Your task to perform on an android device: check the backup settings in the google photos Image 0: 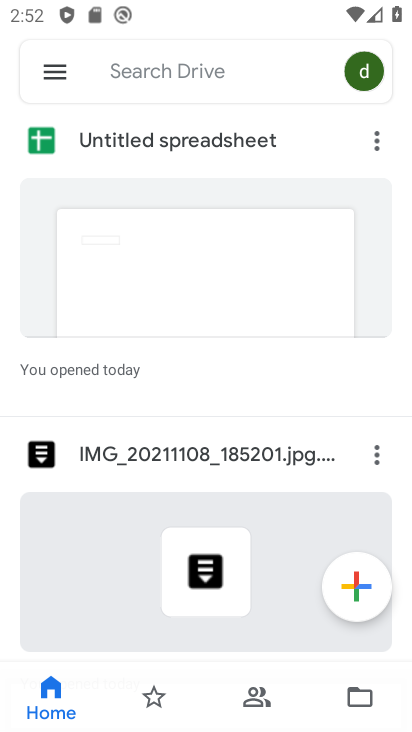
Step 0: press home button
Your task to perform on an android device: check the backup settings in the google photos Image 1: 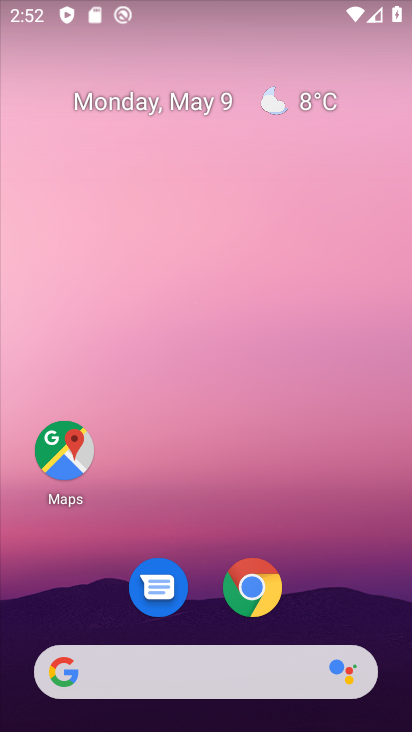
Step 1: drag from (309, 581) to (297, 189)
Your task to perform on an android device: check the backup settings in the google photos Image 2: 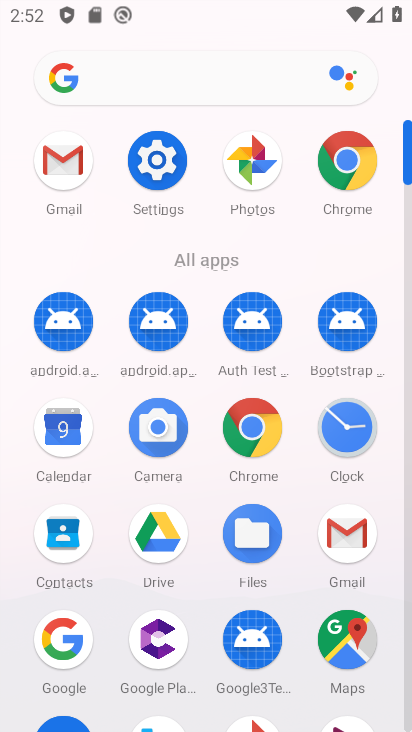
Step 2: click (246, 189)
Your task to perform on an android device: check the backup settings in the google photos Image 3: 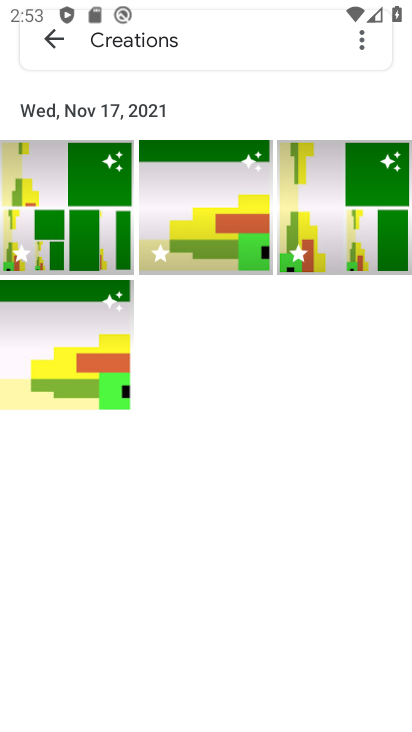
Step 3: click (50, 39)
Your task to perform on an android device: check the backup settings in the google photos Image 4: 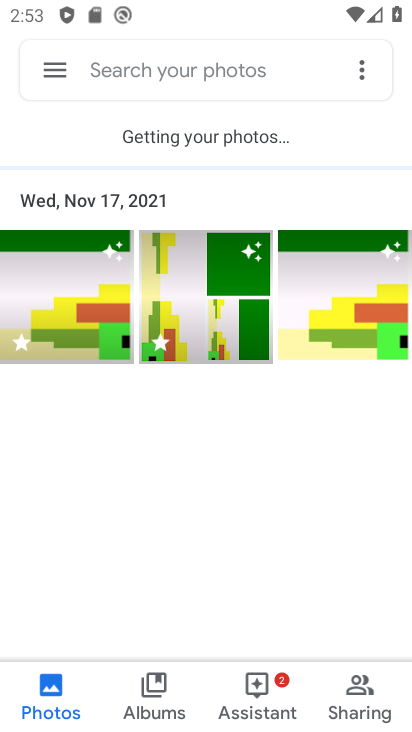
Step 4: click (357, 73)
Your task to perform on an android device: check the backup settings in the google photos Image 5: 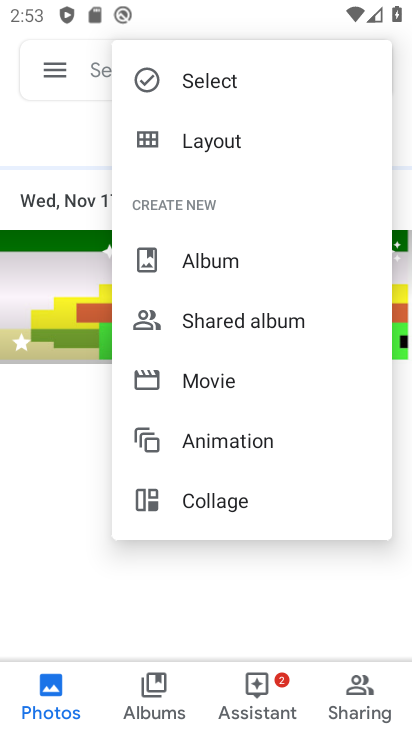
Step 5: click (45, 545)
Your task to perform on an android device: check the backup settings in the google photos Image 6: 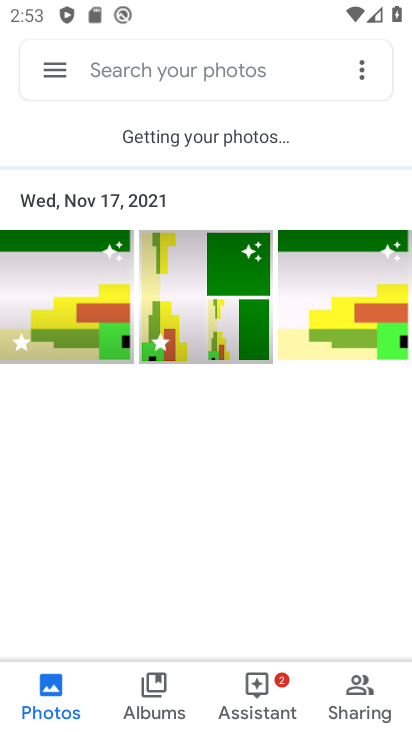
Step 6: click (48, 77)
Your task to perform on an android device: check the backup settings in the google photos Image 7: 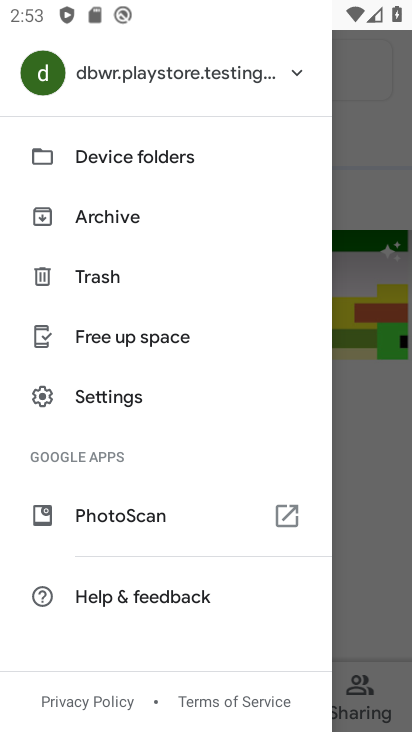
Step 7: click (130, 404)
Your task to perform on an android device: check the backup settings in the google photos Image 8: 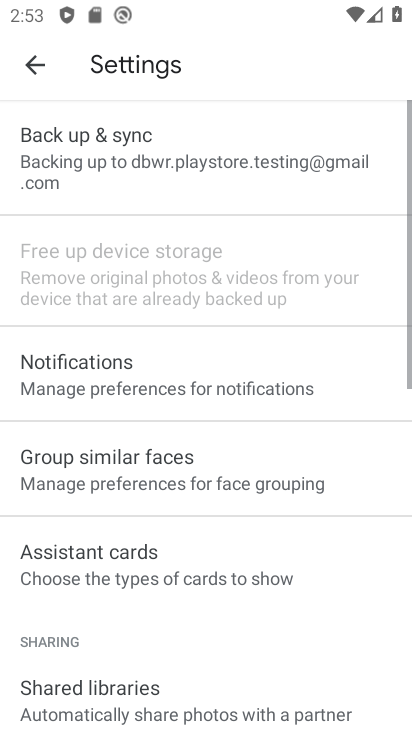
Step 8: click (181, 178)
Your task to perform on an android device: check the backup settings in the google photos Image 9: 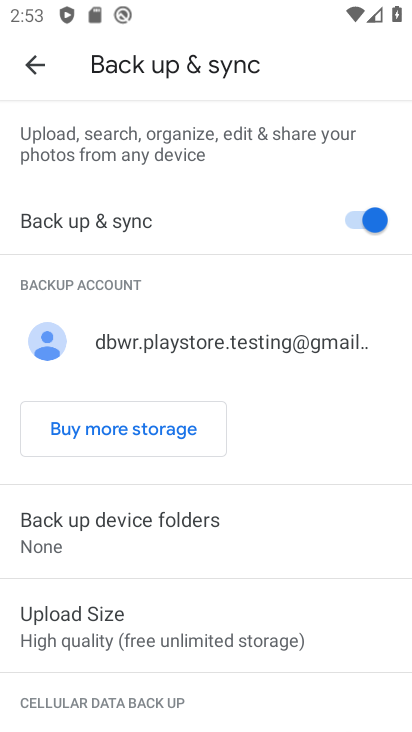
Step 9: task complete